Your task to perform on an android device: add a label to a message in the gmail app Image 0: 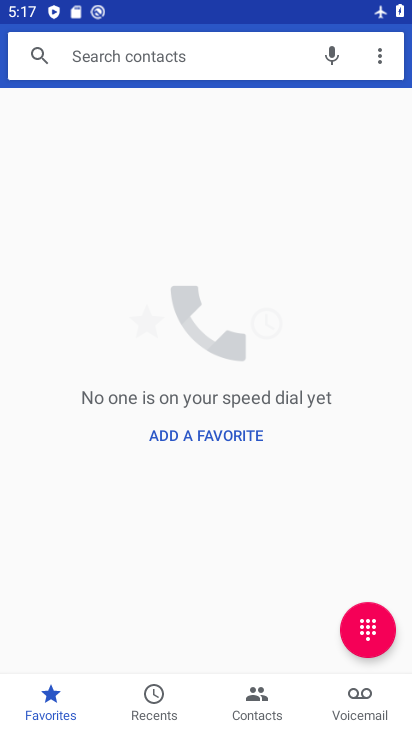
Step 0: press home button
Your task to perform on an android device: add a label to a message in the gmail app Image 1: 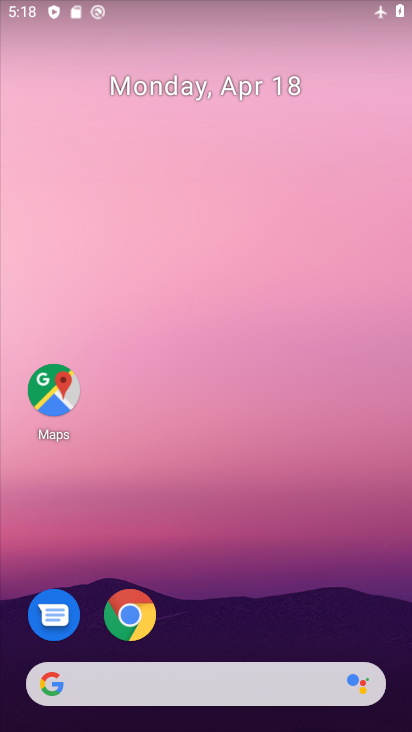
Step 1: drag from (323, 632) to (232, 0)
Your task to perform on an android device: add a label to a message in the gmail app Image 2: 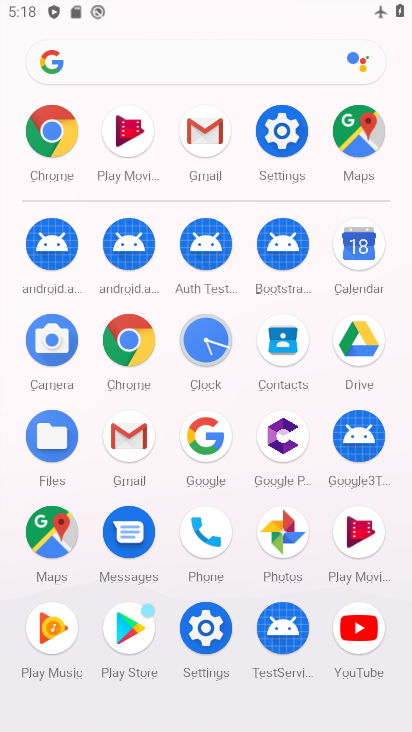
Step 2: click (215, 144)
Your task to perform on an android device: add a label to a message in the gmail app Image 3: 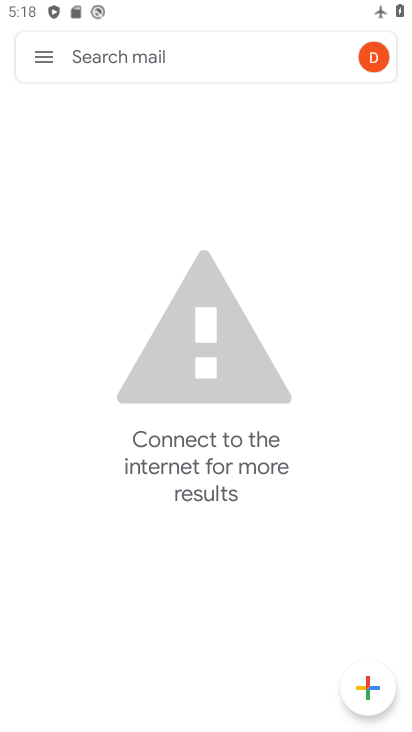
Step 3: task complete